Your task to perform on an android device: Add "macbook pro" to the cart on newegg.com, then select checkout. Image 0: 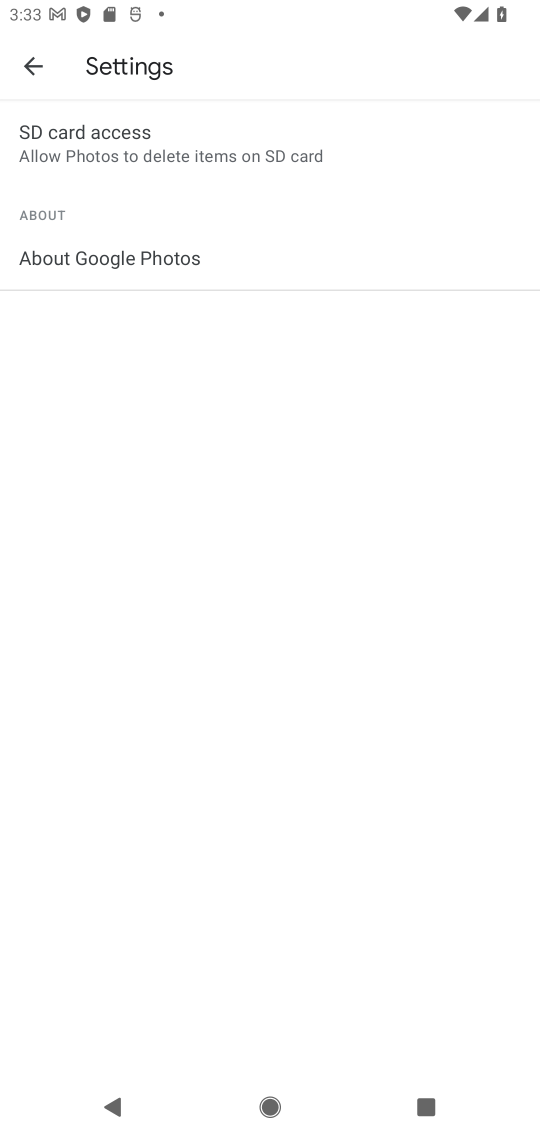
Step 0: press home button
Your task to perform on an android device: Add "macbook pro" to the cart on newegg.com, then select checkout. Image 1: 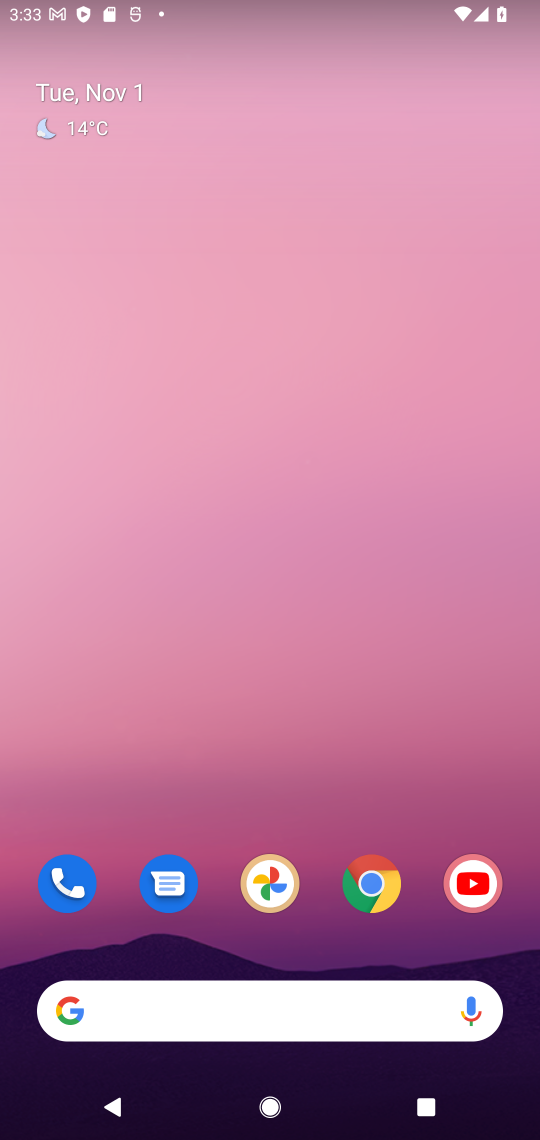
Step 1: click (367, 883)
Your task to perform on an android device: Add "macbook pro" to the cart on newegg.com, then select checkout. Image 2: 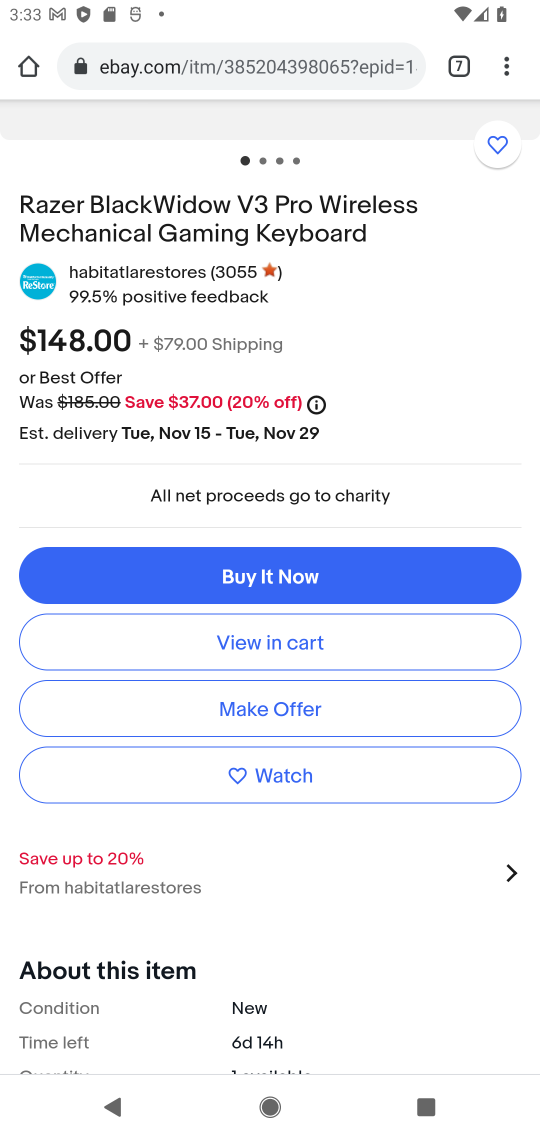
Step 2: click (446, 88)
Your task to perform on an android device: Add "macbook pro" to the cart on newegg.com, then select checkout. Image 3: 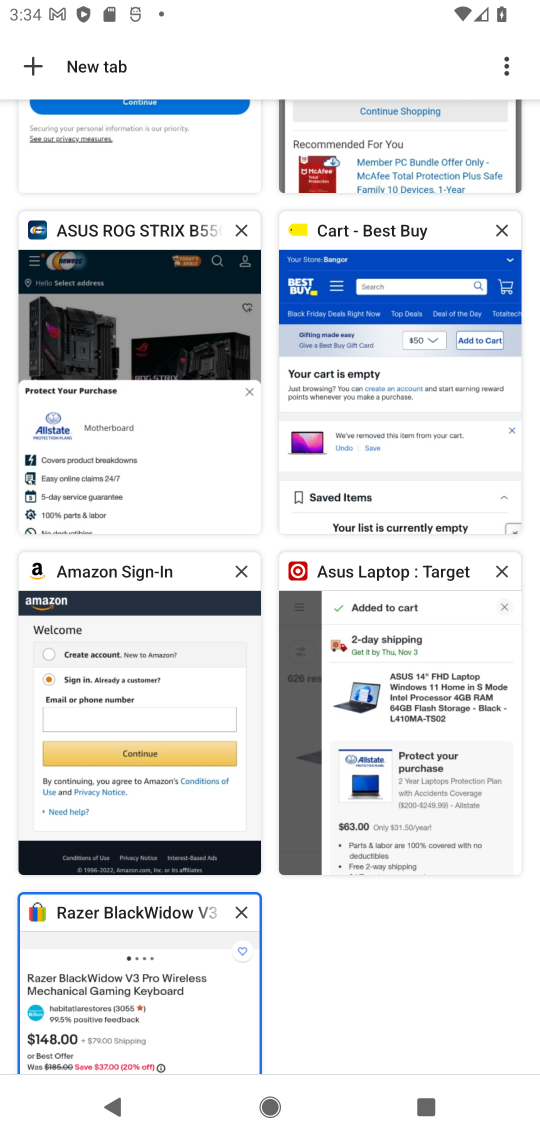
Step 3: click (120, 340)
Your task to perform on an android device: Add "macbook pro" to the cart on newegg.com, then select checkout. Image 4: 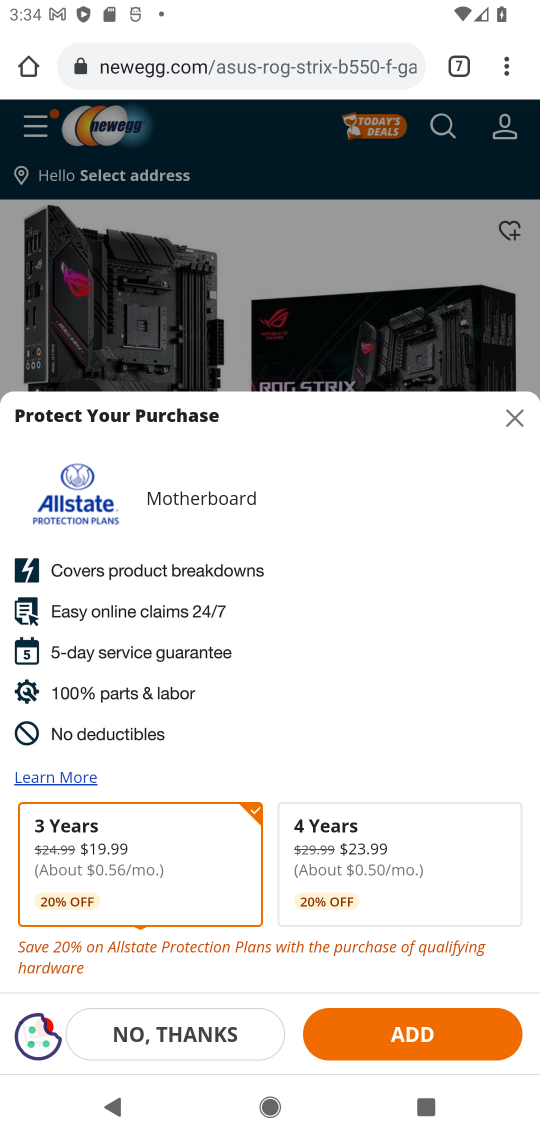
Step 4: click (512, 409)
Your task to perform on an android device: Add "macbook pro" to the cart on newegg.com, then select checkout. Image 5: 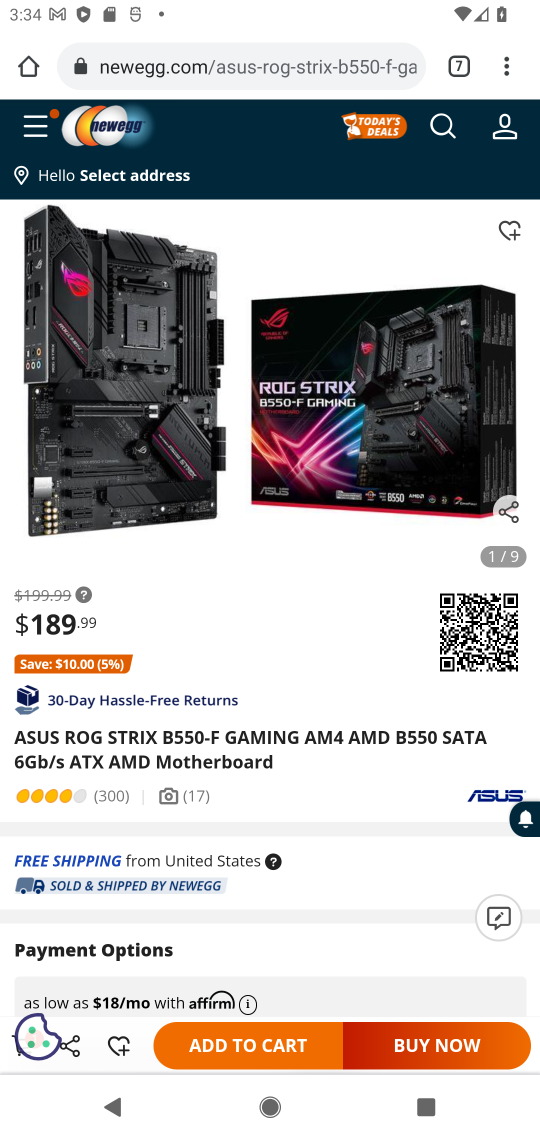
Step 5: click (442, 134)
Your task to perform on an android device: Add "macbook pro" to the cart on newegg.com, then select checkout. Image 6: 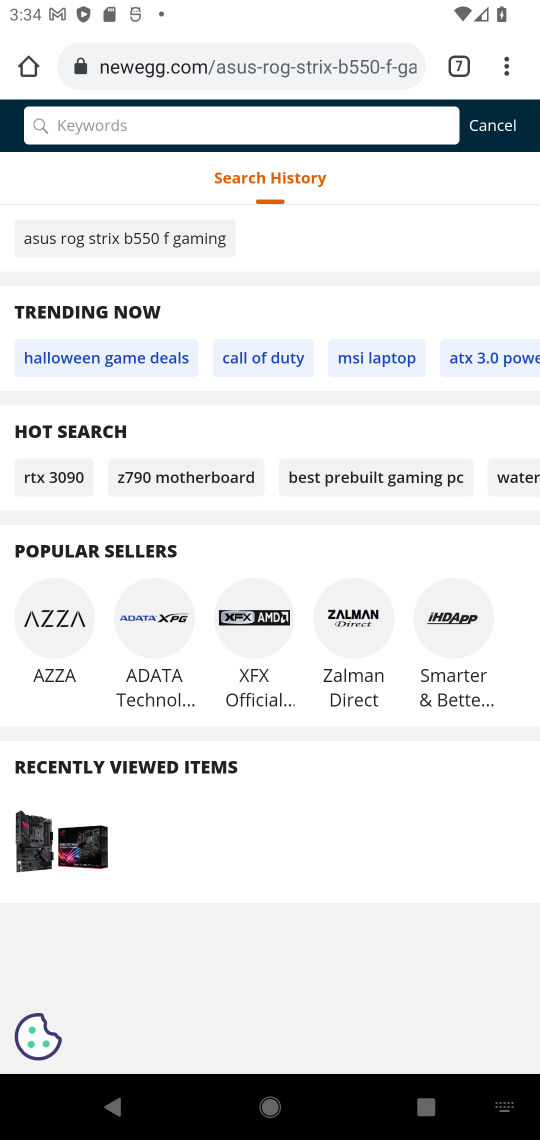
Step 6: type "macbook pro"
Your task to perform on an android device: Add "macbook pro" to the cart on newegg.com, then select checkout. Image 7: 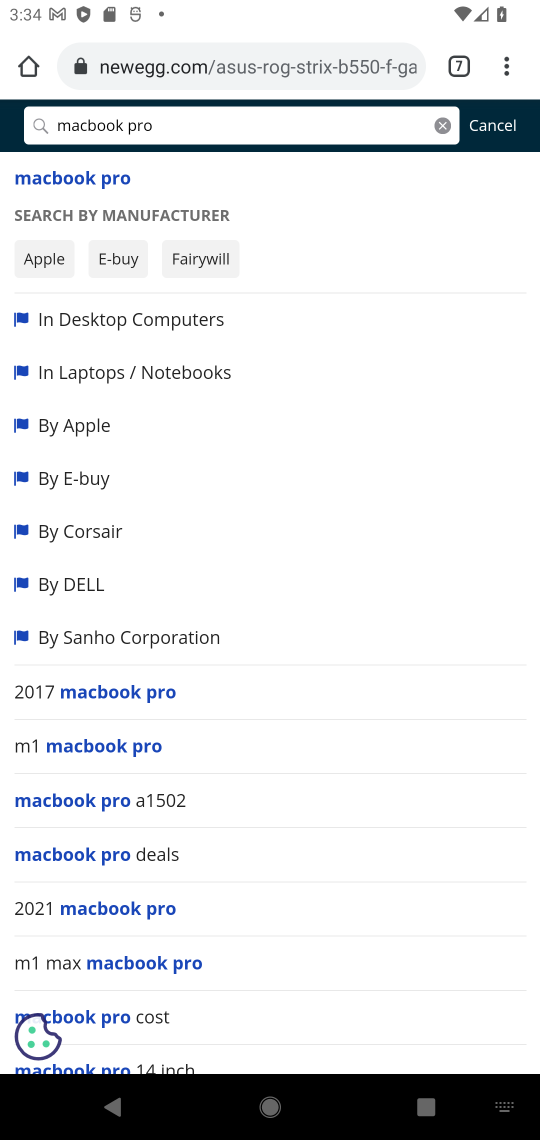
Step 7: click (28, 172)
Your task to perform on an android device: Add "macbook pro" to the cart on newegg.com, then select checkout. Image 8: 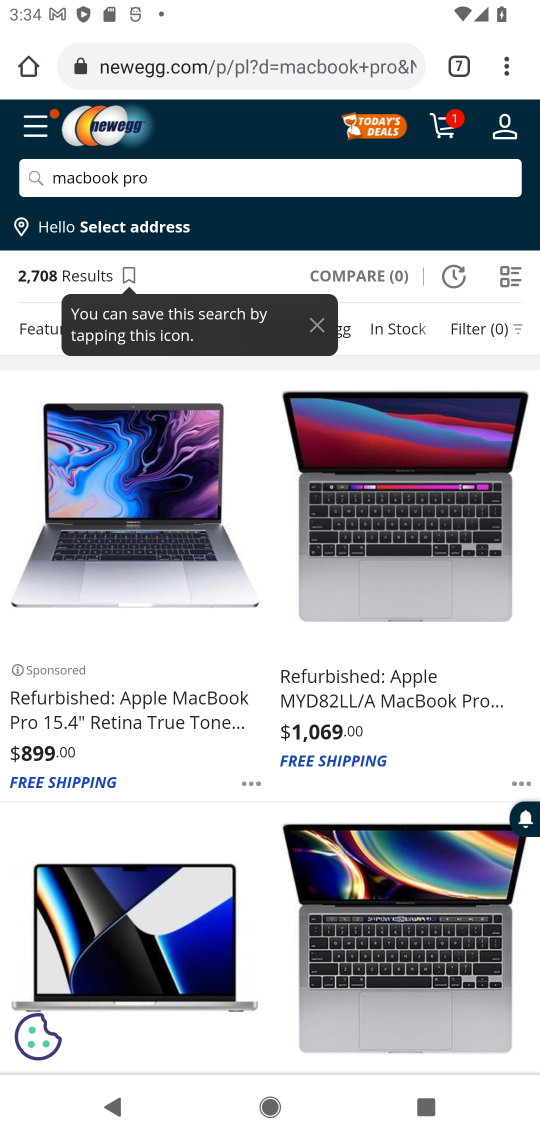
Step 8: click (337, 691)
Your task to perform on an android device: Add "macbook pro" to the cart on newegg.com, then select checkout. Image 9: 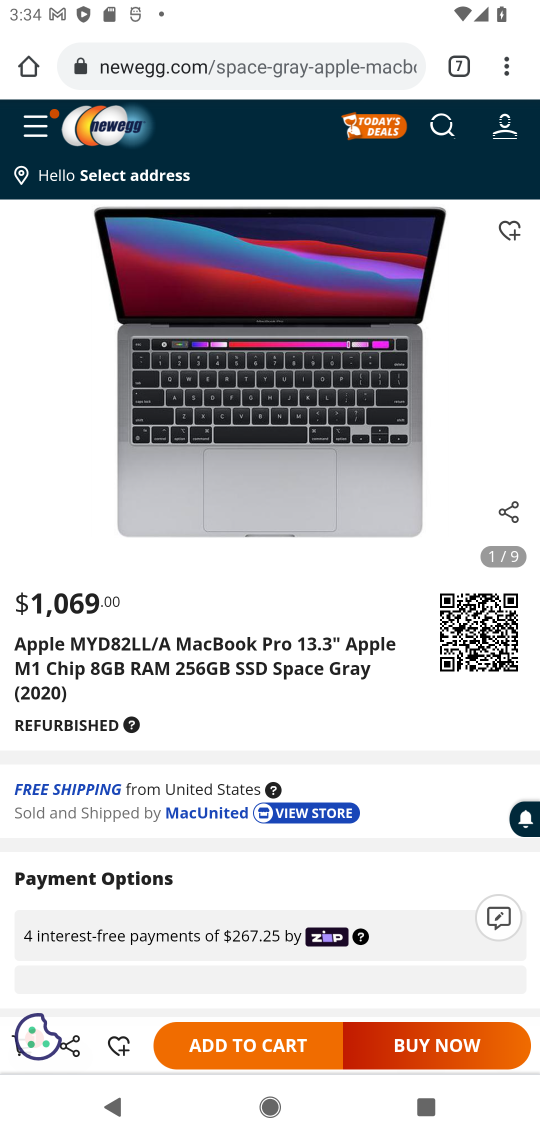
Step 9: click (233, 1045)
Your task to perform on an android device: Add "macbook pro" to the cart on newegg.com, then select checkout. Image 10: 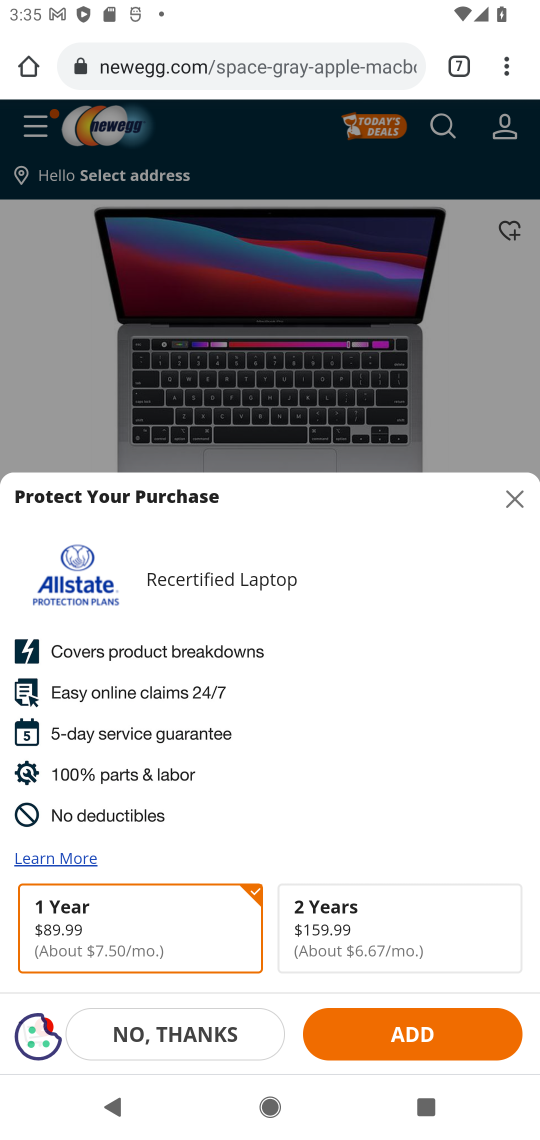
Step 10: click (198, 1028)
Your task to perform on an android device: Add "macbook pro" to the cart on newegg.com, then select checkout. Image 11: 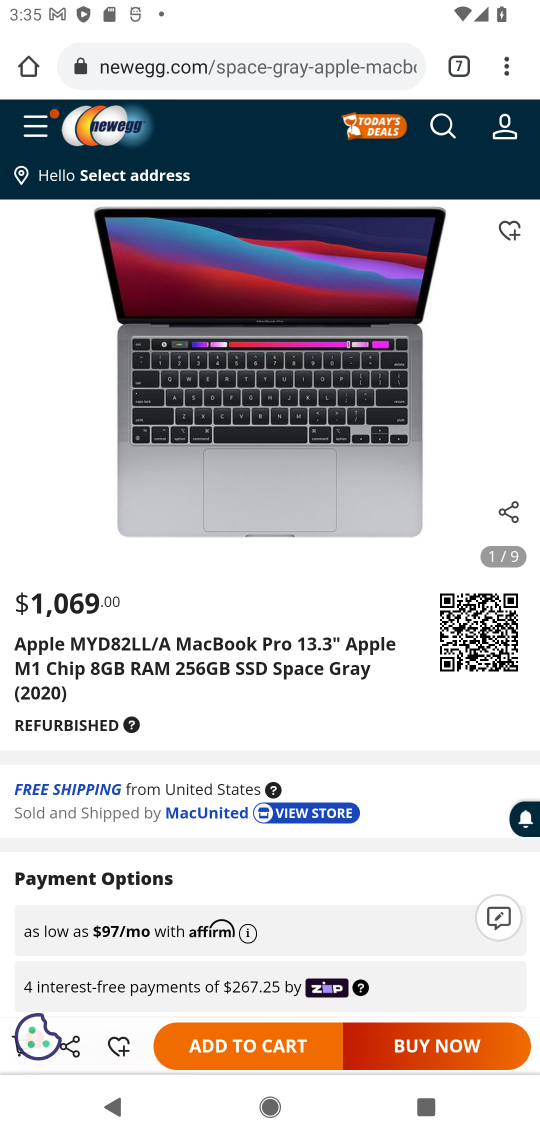
Step 11: click (15, 1050)
Your task to perform on an android device: Add "macbook pro" to the cart on newegg.com, then select checkout. Image 12: 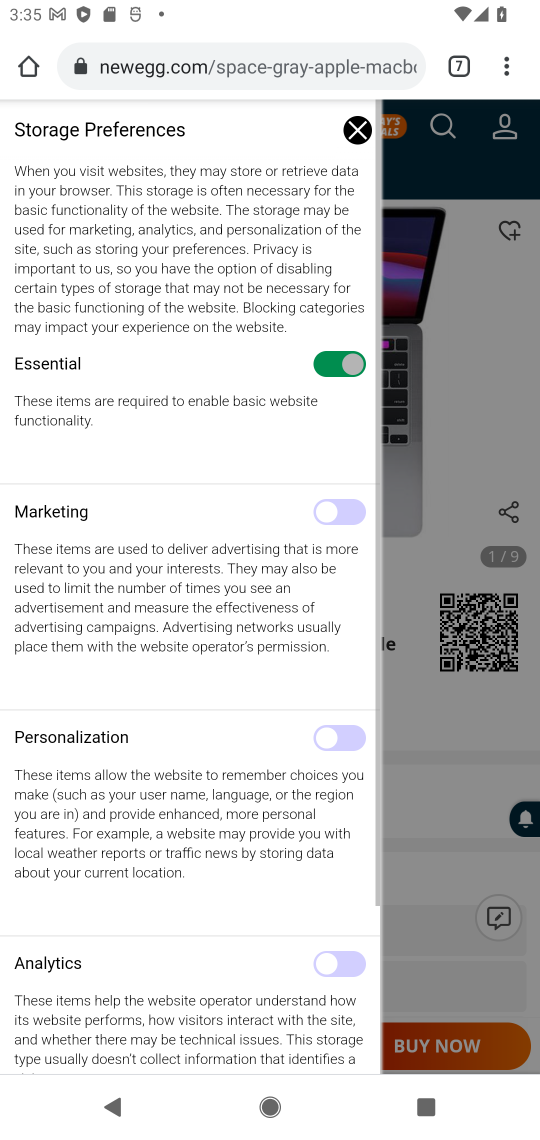
Step 12: click (359, 127)
Your task to perform on an android device: Add "macbook pro" to the cart on newegg.com, then select checkout. Image 13: 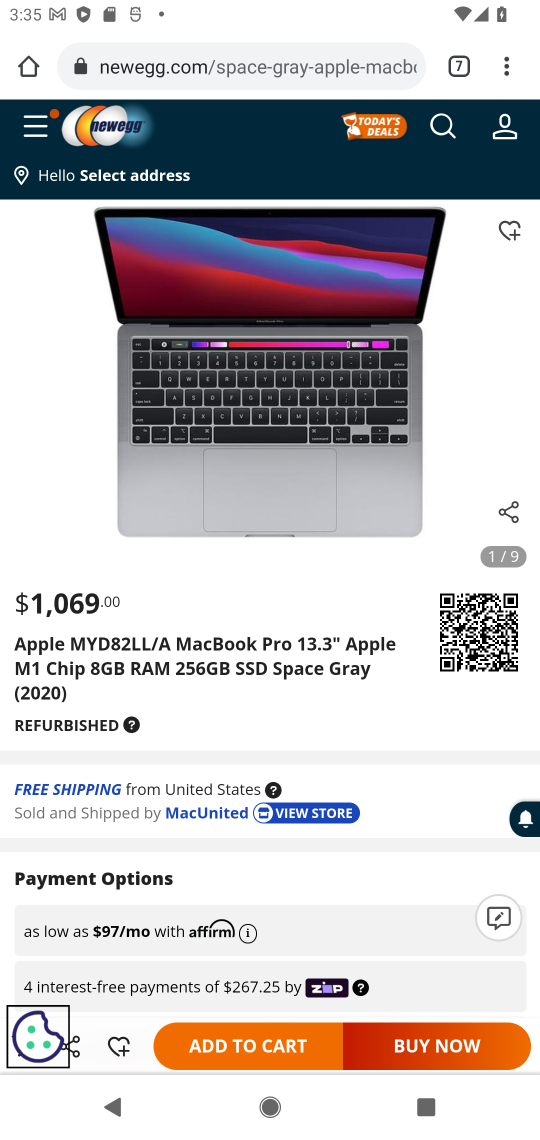
Step 13: click (207, 1036)
Your task to perform on an android device: Add "macbook pro" to the cart on newegg.com, then select checkout. Image 14: 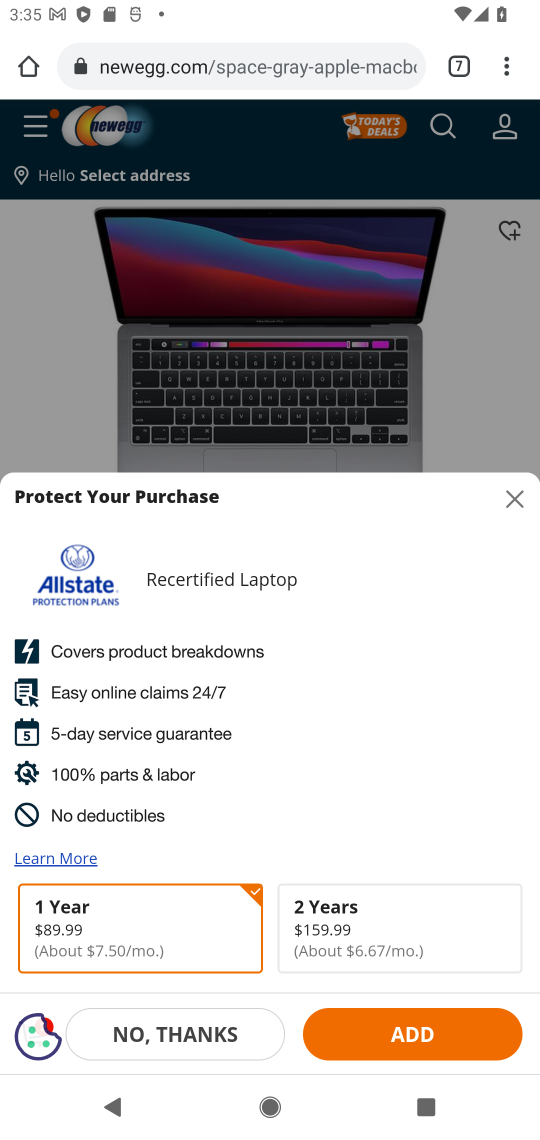
Step 14: click (196, 1034)
Your task to perform on an android device: Add "macbook pro" to the cart on newegg.com, then select checkout. Image 15: 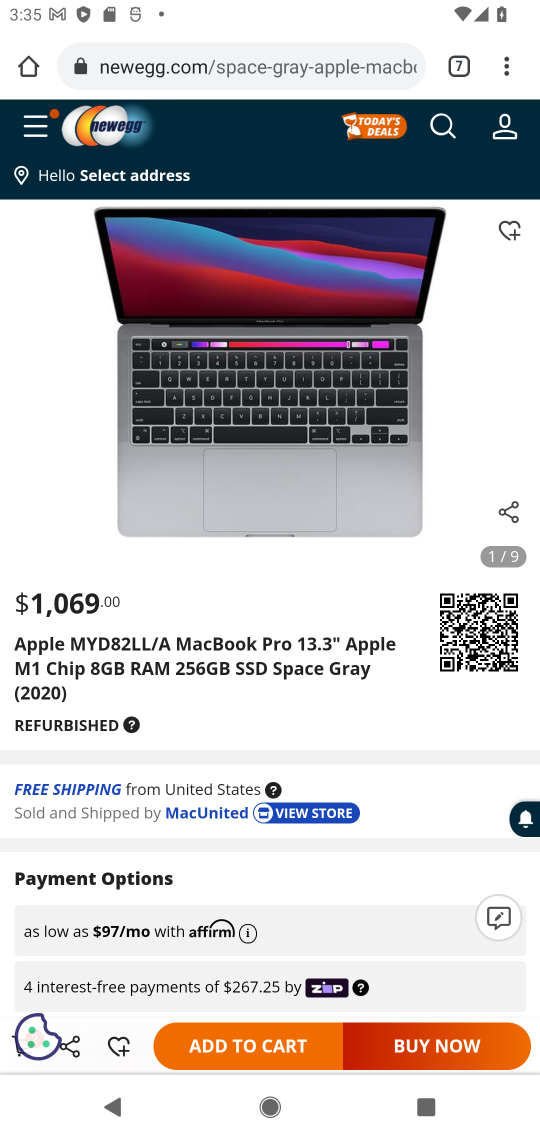
Step 15: task complete